Your task to perform on an android device: turn pop-ups on in chrome Image 0: 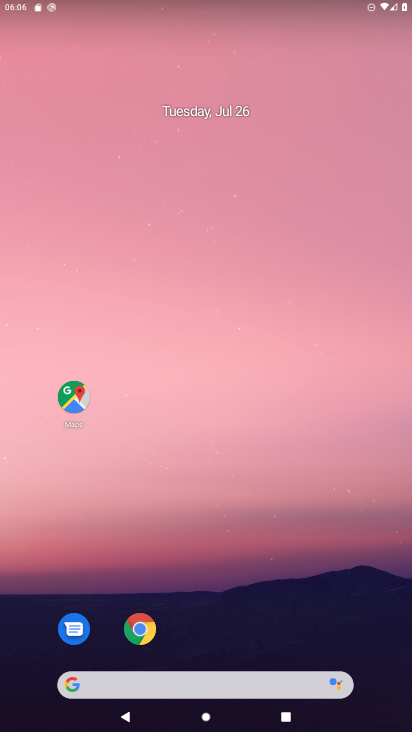
Step 0: click (133, 634)
Your task to perform on an android device: turn pop-ups on in chrome Image 1: 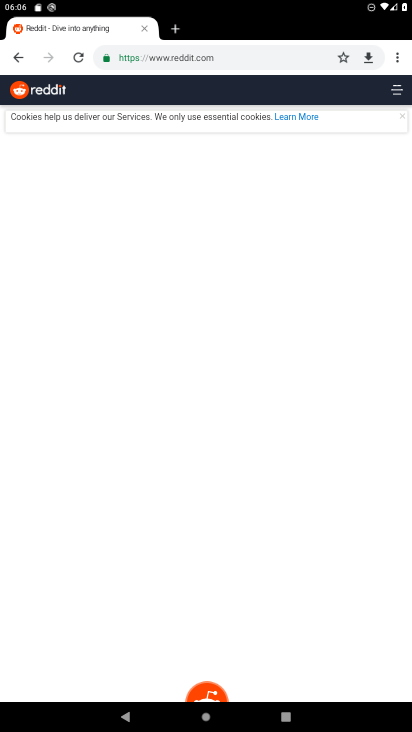
Step 1: click (399, 62)
Your task to perform on an android device: turn pop-ups on in chrome Image 2: 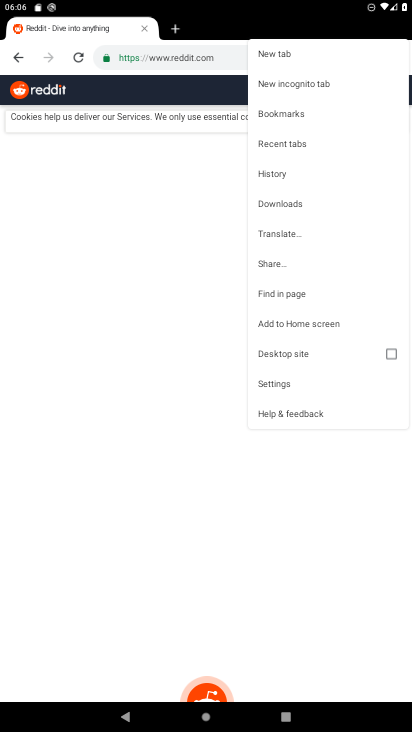
Step 2: click (279, 383)
Your task to perform on an android device: turn pop-ups on in chrome Image 3: 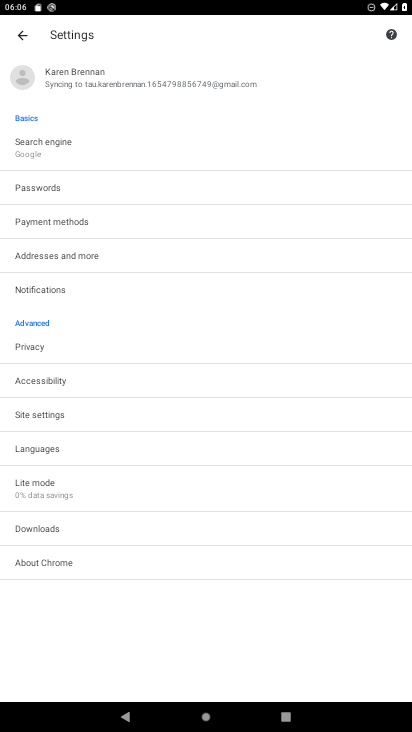
Step 3: click (51, 413)
Your task to perform on an android device: turn pop-ups on in chrome Image 4: 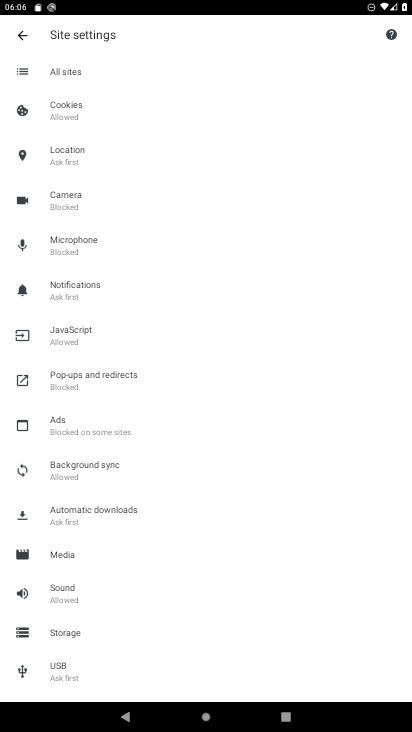
Step 4: click (86, 379)
Your task to perform on an android device: turn pop-ups on in chrome Image 5: 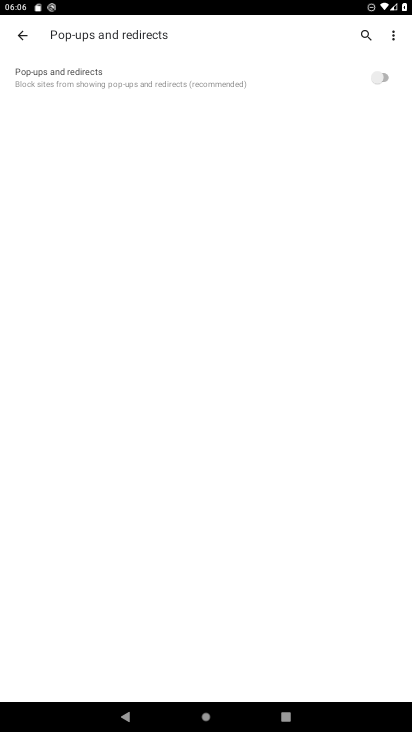
Step 5: click (385, 77)
Your task to perform on an android device: turn pop-ups on in chrome Image 6: 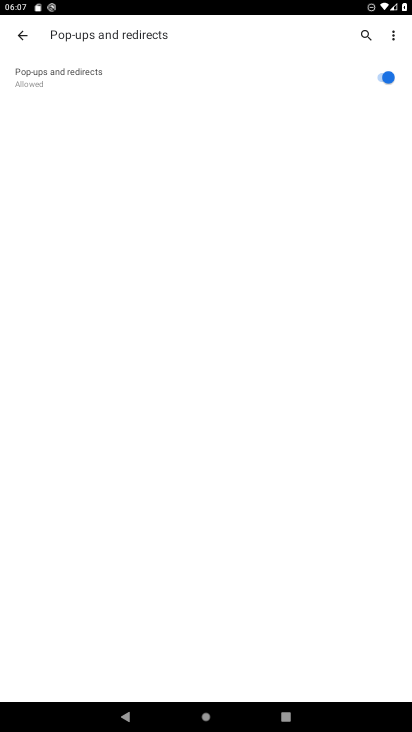
Step 6: task complete